Your task to perform on an android device: Open Yahoo.com Image 0: 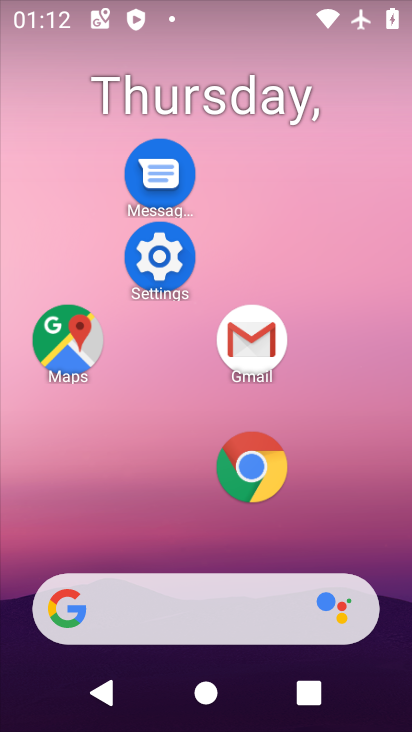
Step 0: drag from (183, 551) to (264, 57)
Your task to perform on an android device: Open Yahoo.com Image 1: 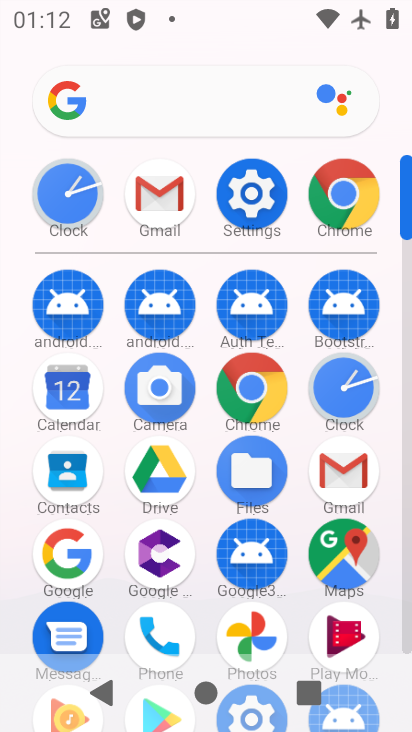
Step 1: drag from (214, 581) to (231, 169)
Your task to perform on an android device: Open Yahoo.com Image 2: 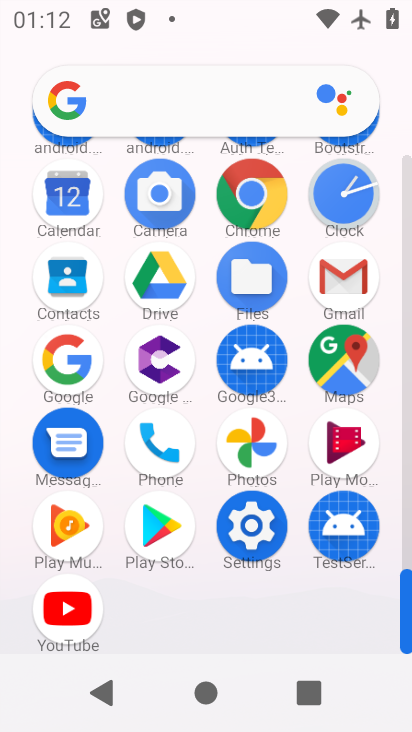
Step 2: click (237, 89)
Your task to perform on an android device: Open Yahoo.com Image 3: 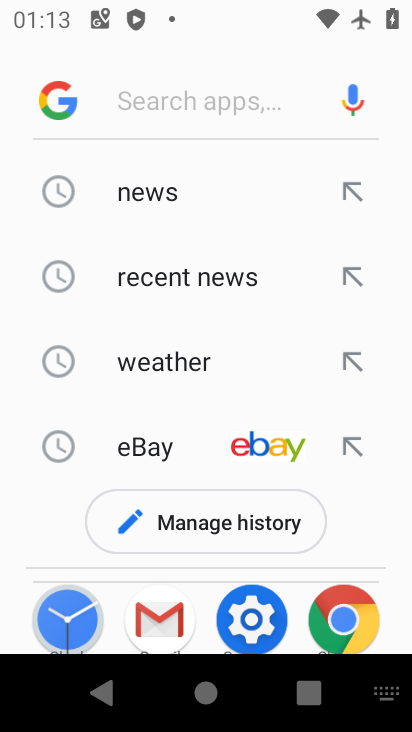
Step 3: type "yahoo.com"
Your task to perform on an android device: Open Yahoo.com Image 4: 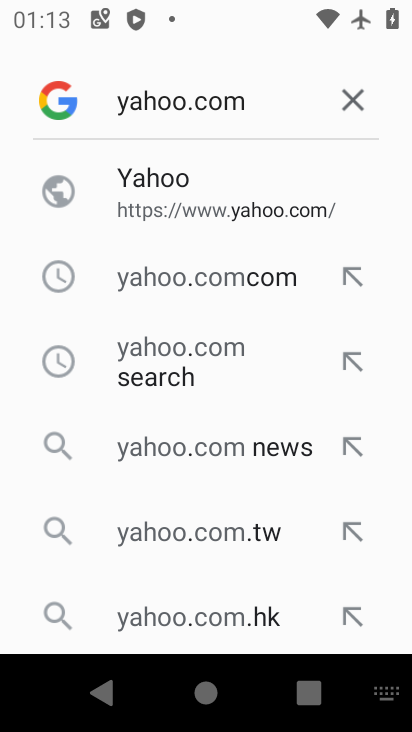
Step 4: click (168, 196)
Your task to perform on an android device: Open Yahoo.com Image 5: 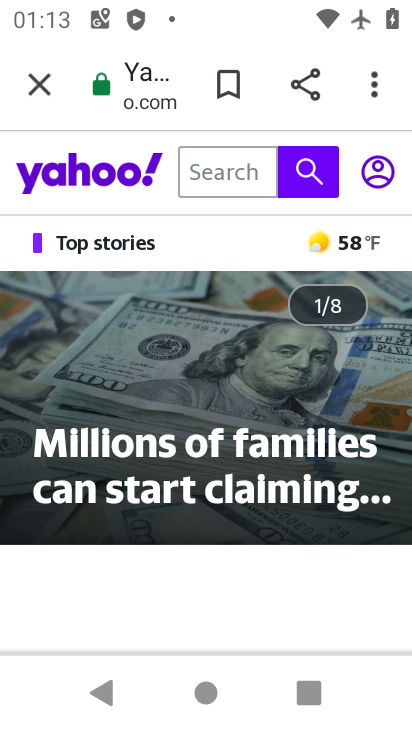
Step 5: task complete